Your task to perform on an android device: What's the weather? Image 0: 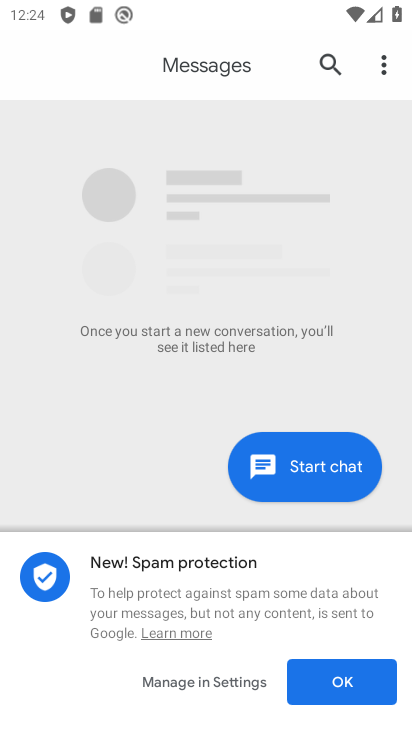
Step 0: press home button
Your task to perform on an android device: What's the weather? Image 1: 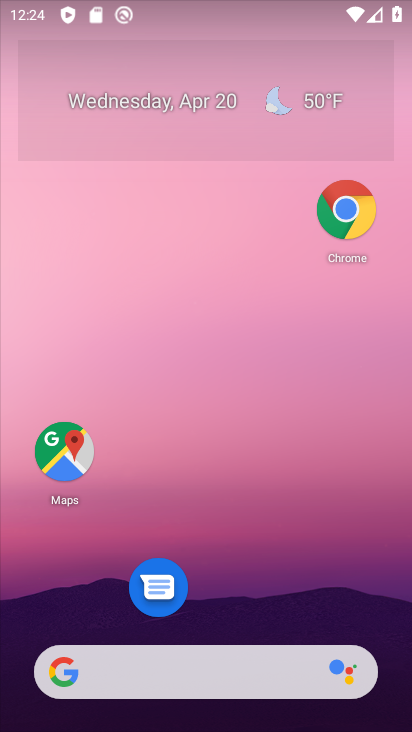
Step 1: click (302, 100)
Your task to perform on an android device: What's the weather? Image 2: 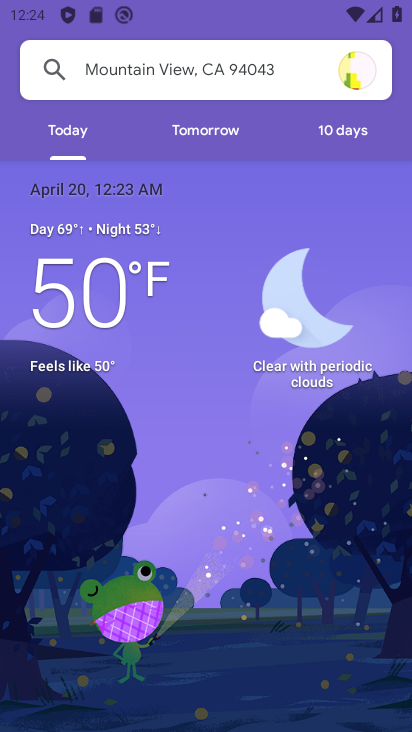
Step 2: task complete